Your task to perform on an android device: Open the calendar app, open the side menu, and click the "Day" option Image 0: 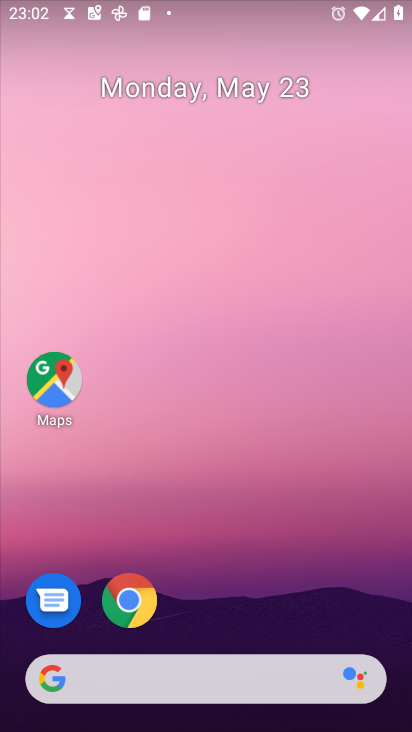
Step 0: drag from (206, 719) to (219, 97)
Your task to perform on an android device: Open the calendar app, open the side menu, and click the "Day" option Image 1: 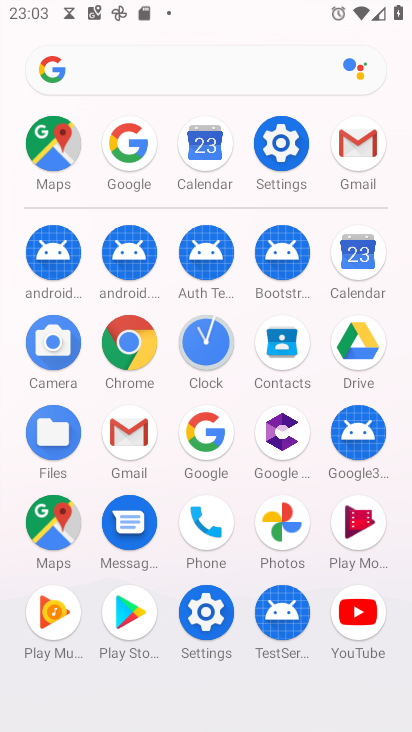
Step 1: click (352, 263)
Your task to perform on an android device: Open the calendar app, open the side menu, and click the "Day" option Image 2: 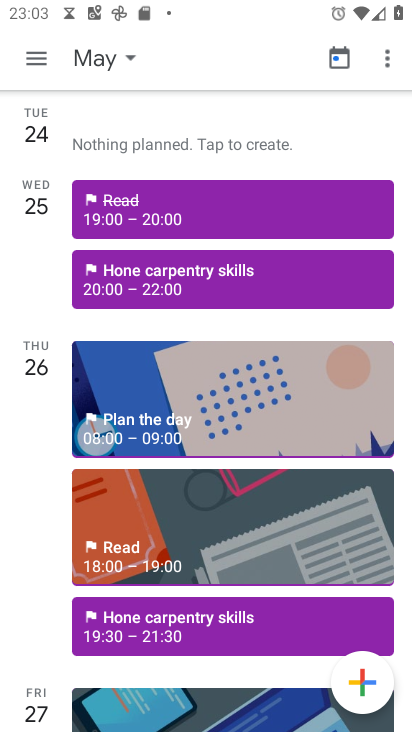
Step 2: click (40, 59)
Your task to perform on an android device: Open the calendar app, open the side menu, and click the "Day" option Image 3: 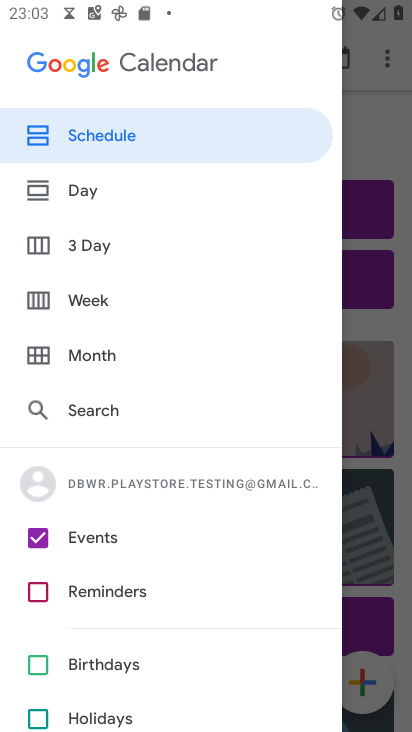
Step 3: click (83, 191)
Your task to perform on an android device: Open the calendar app, open the side menu, and click the "Day" option Image 4: 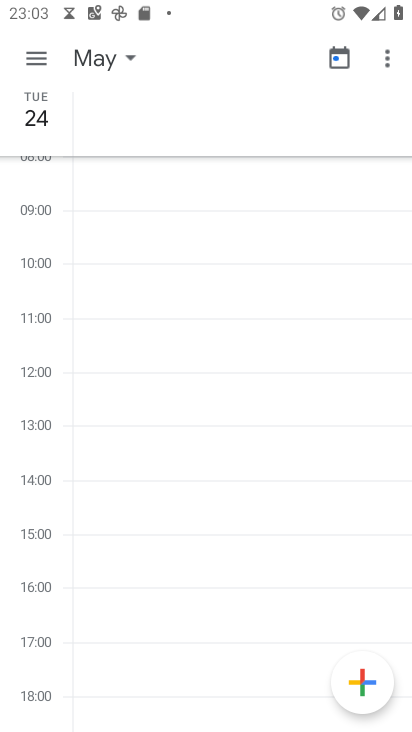
Step 4: task complete